Your task to perform on an android device: Is it going to rain tomorrow? Image 0: 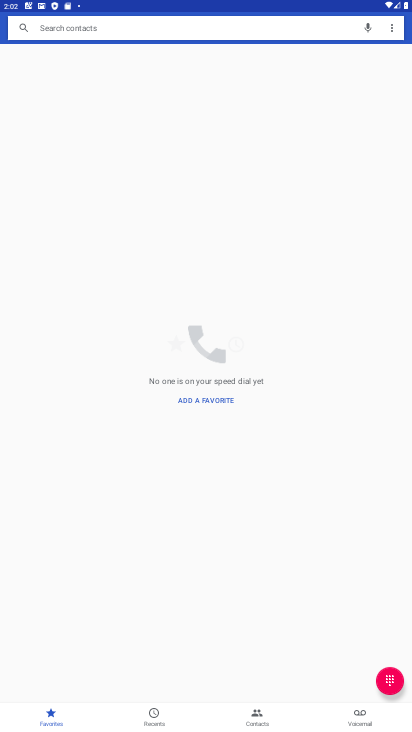
Step 0: press home button
Your task to perform on an android device: Is it going to rain tomorrow? Image 1: 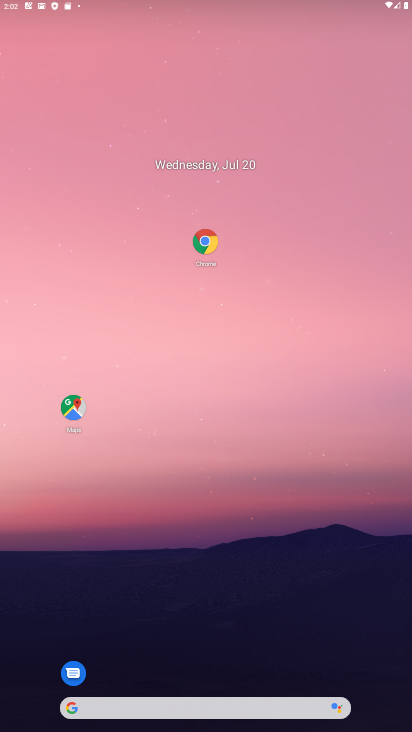
Step 1: drag from (202, 634) to (213, 79)
Your task to perform on an android device: Is it going to rain tomorrow? Image 2: 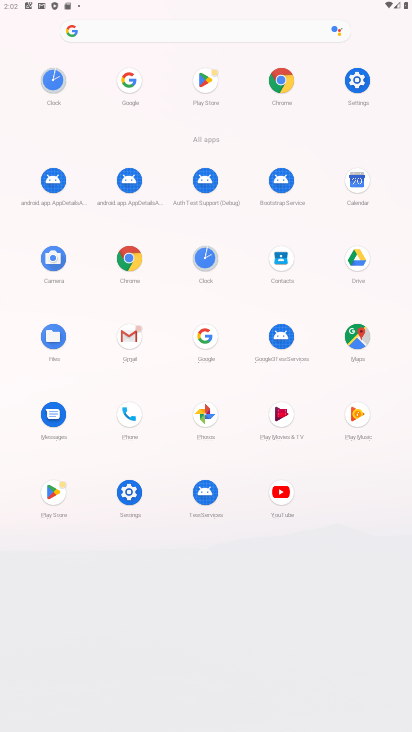
Step 2: click (205, 341)
Your task to perform on an android device: Is it going to rain tomorrow? Image 3: 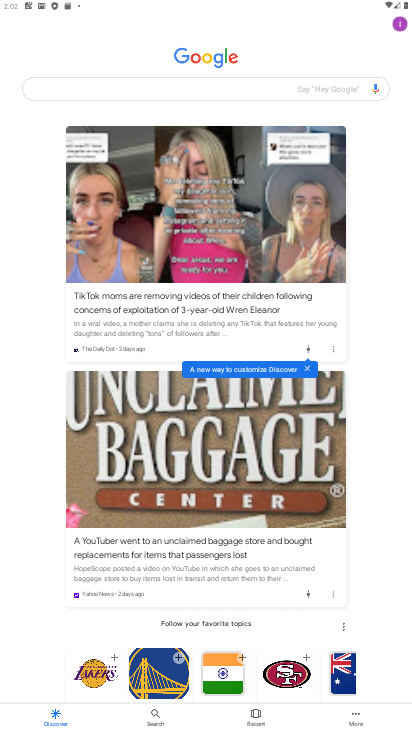
Step 3: click (216, 91)
Your task to perform on an android device: Is it going to rain tomorrow? Image 4: 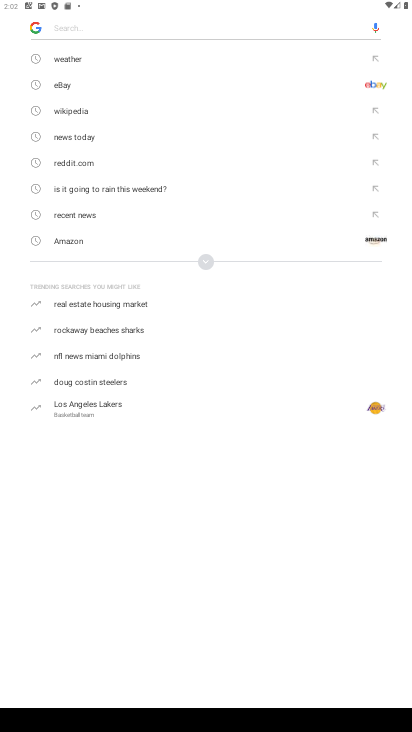
Step 4: type "is it "
Your task to perform on an android device: Is it going to rain tomorrow? Image 5: 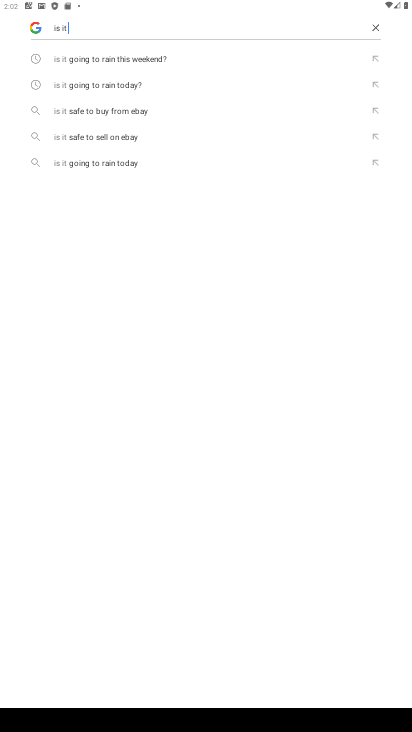
Step 5: click (373, 31)
Your task to perform on an android device: Is it going to rain tomorrow? Image 6: 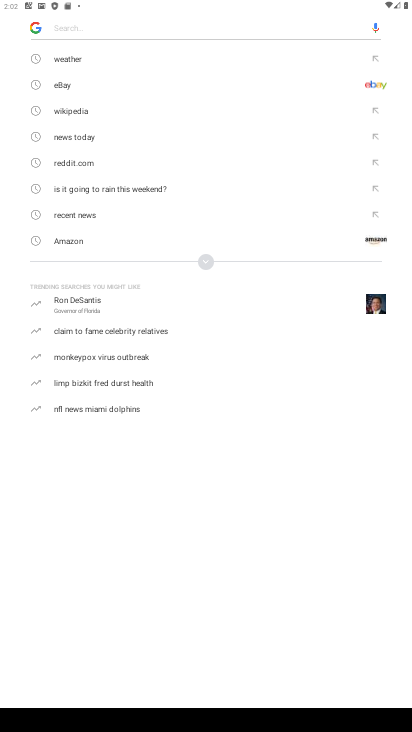
Step 6: type "is it going to rain tomorrow"
Your task to perform on an android device: Is it going to rain tomorrow? Image 7: 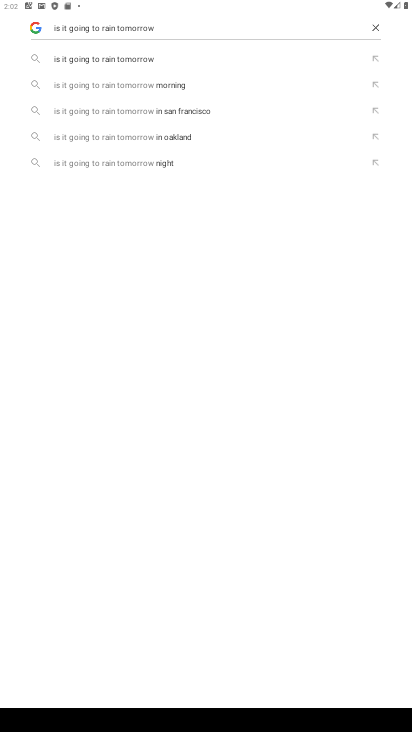
Step 7: click (130, 66)
Your task to perform on an android device: Is it going to rain tomorrow? Image 8: 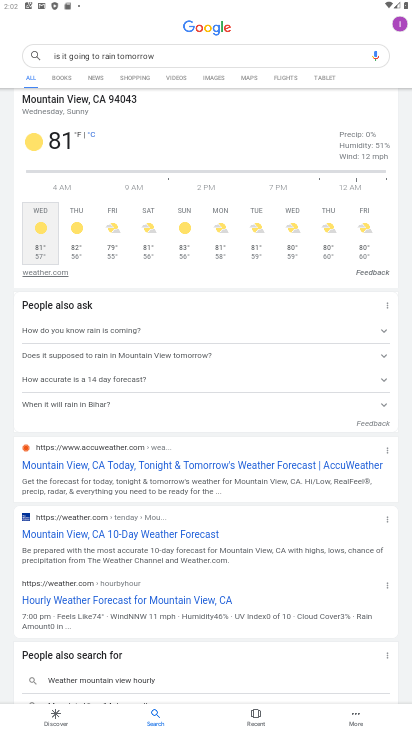
Step 8: task complete